Your task to perform on an android device: stop showing notifications on the lock screen Image 0: 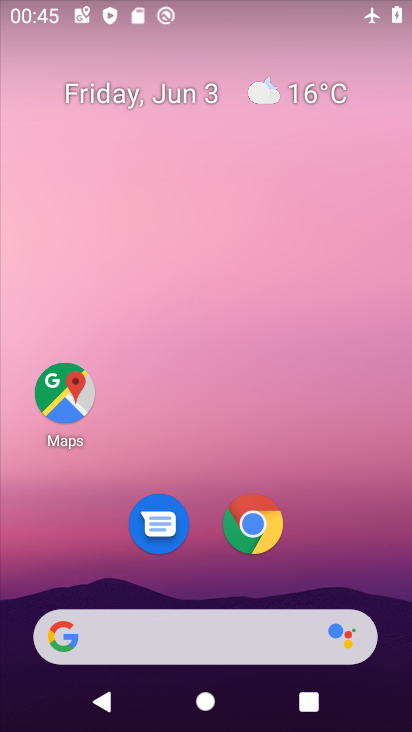
Step 0: drag from (255, 456) to (259, 0)
Your task to perform on an android device: stop showing notifications on the lock screen Image 1: 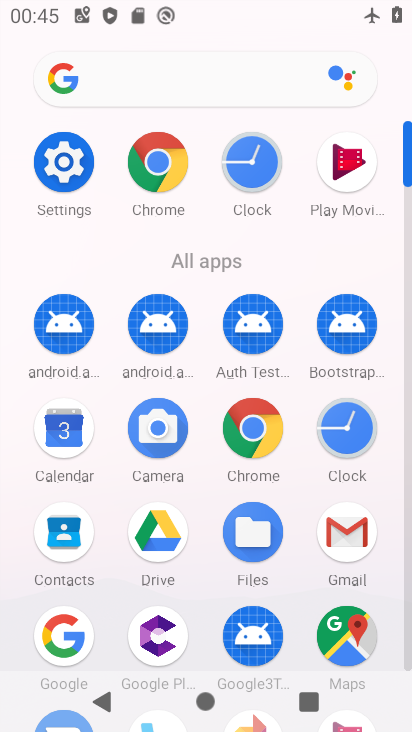
Step 1: click (63, 161)
Your task to perform on an android device: stop showing notifications on the lock screen Image 2: 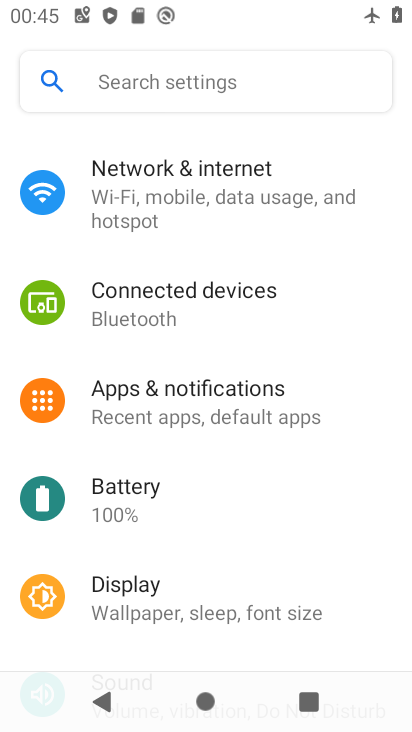
Step 2: click (249, 413)
Your task to perform on an android device: stop showing notifications on the lock screen Image 3: 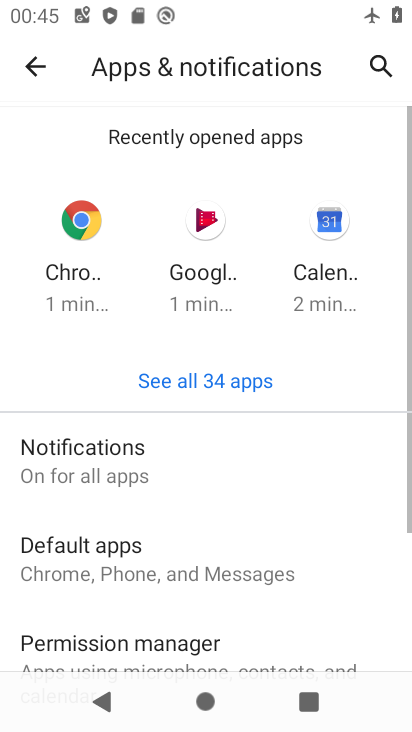
Step 3: click (233, 441)
Your task to perform on an android device: stop showing notifications on the lock screen Image 4: 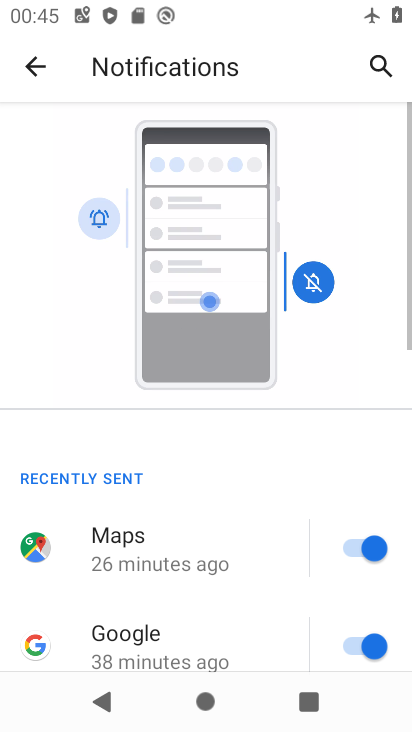
Step 4: drag from (241, 506) to (183, 26)
Your task to perform on an android device: stop showing notifications on the lock screen Image 5: 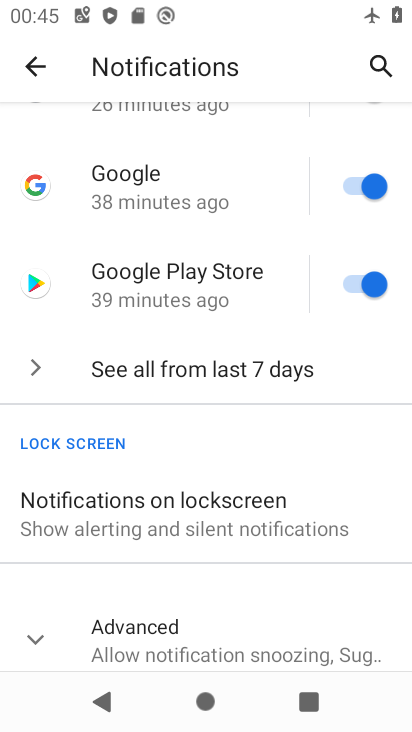
Step 5: click (205, 508)
Your task to perform on an android device: stop showing notifications on the lock screen Image 6: 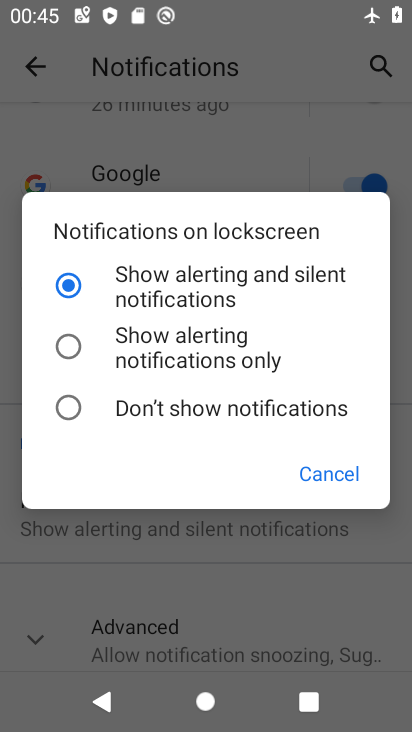
Step 6: click (96, 403)
Your task to perform on an android device: stop showing notifications on the lock screen Image 7: 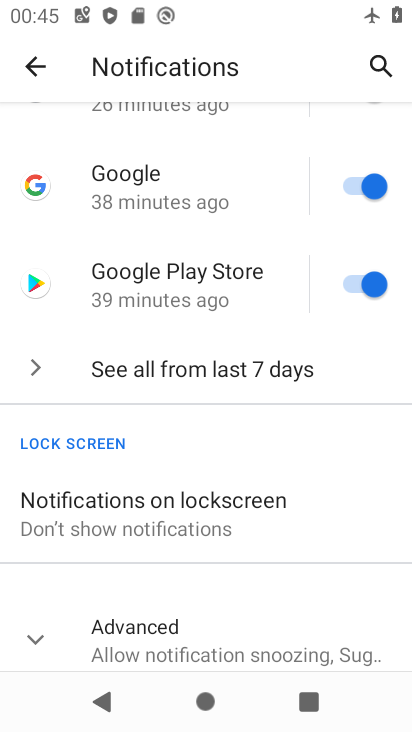
Step 7: task complete